Your task to perform on an android device: Add "alienware area 51" to the cart on ebay.com, then select checkout. Image 0: 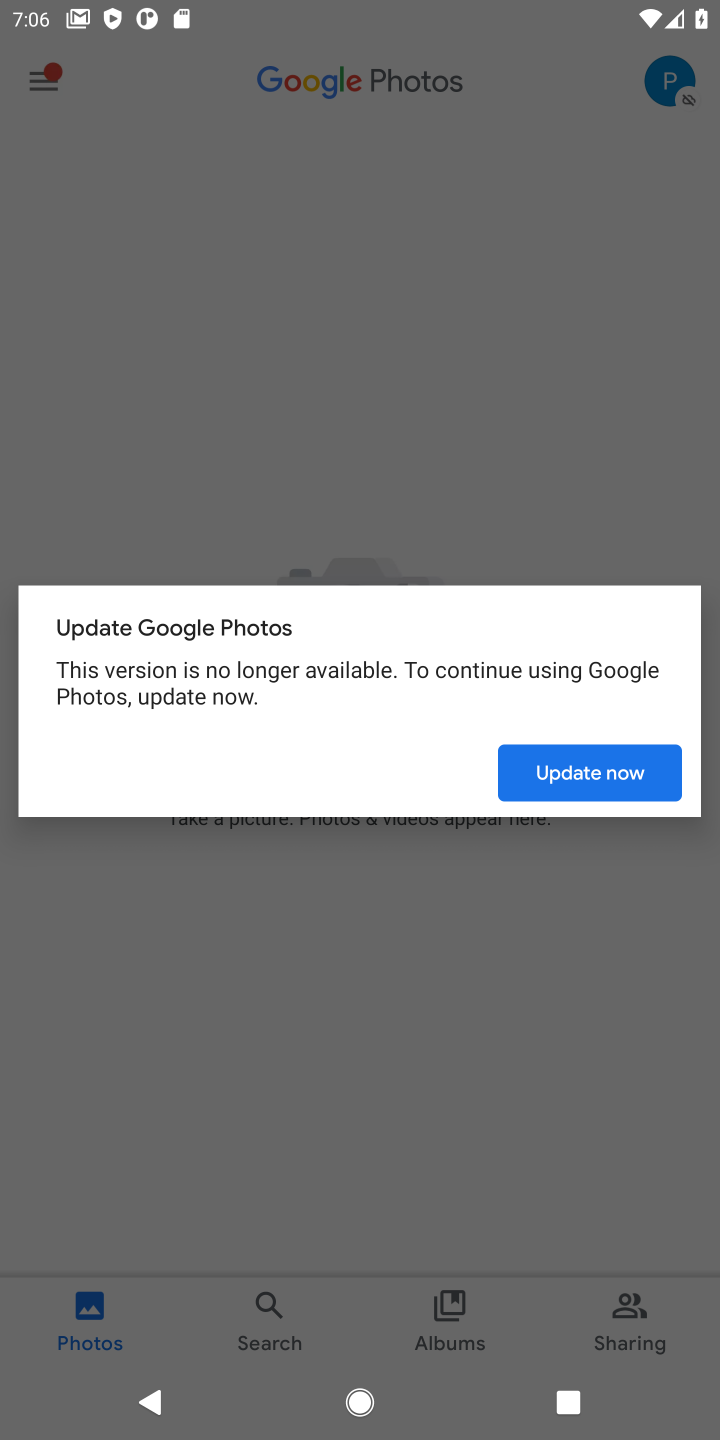
Step 0: press home button
Your task to perform on an android device: Add "alienware area 51" to the cart on ebay.com, then select checkout. Image 1: 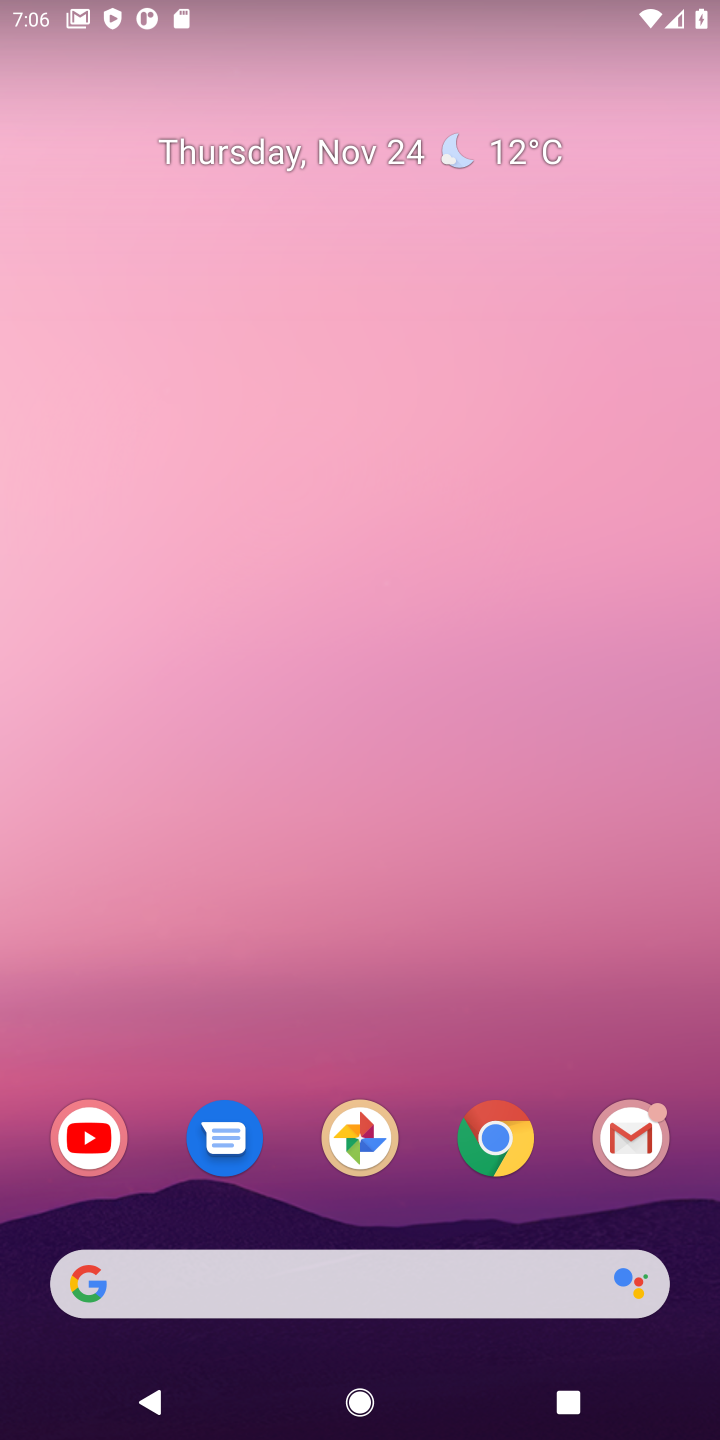
Step 1: click (482, 1146)
Your task to perform on an android device: Add "alienware area 51" to the cart on ebay.com, then select checkout. Image 2: 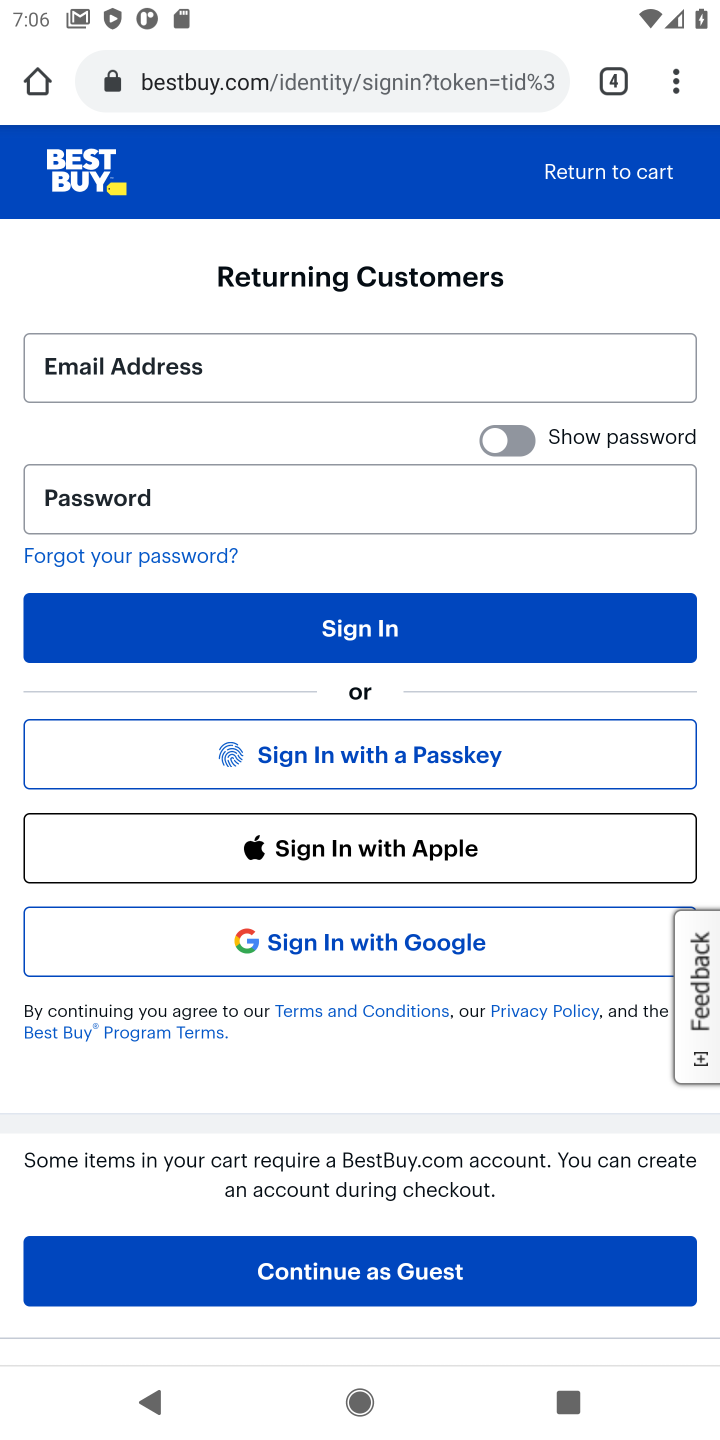
Step 2: click (615, 79)
Your task to perform on an android device: Add "alienware area 51" to the cart on ebay.com, then select checkout. Image 3: 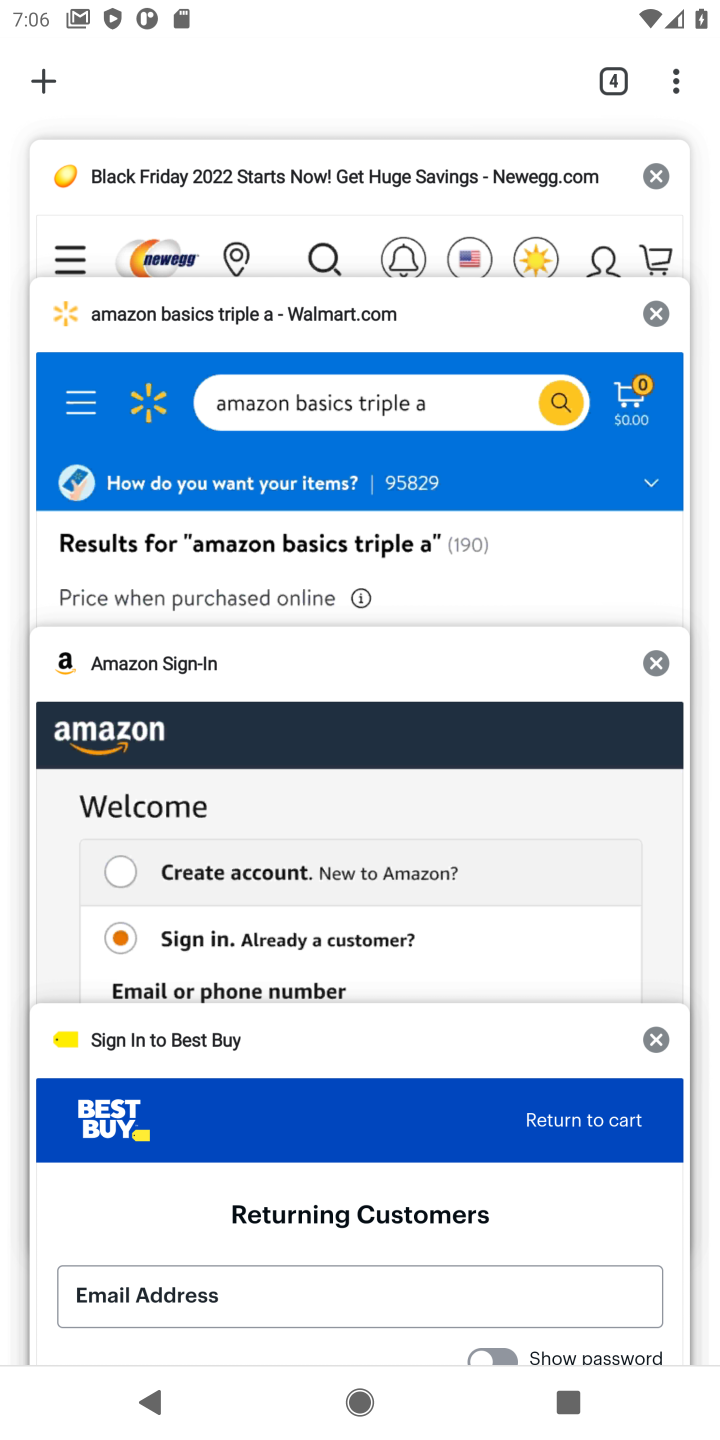
Step 3: click (31, 70)
Your task to perform on an android device: Add "alienware area 51" to the cart on ebay.com, then select checkout. Image 4: 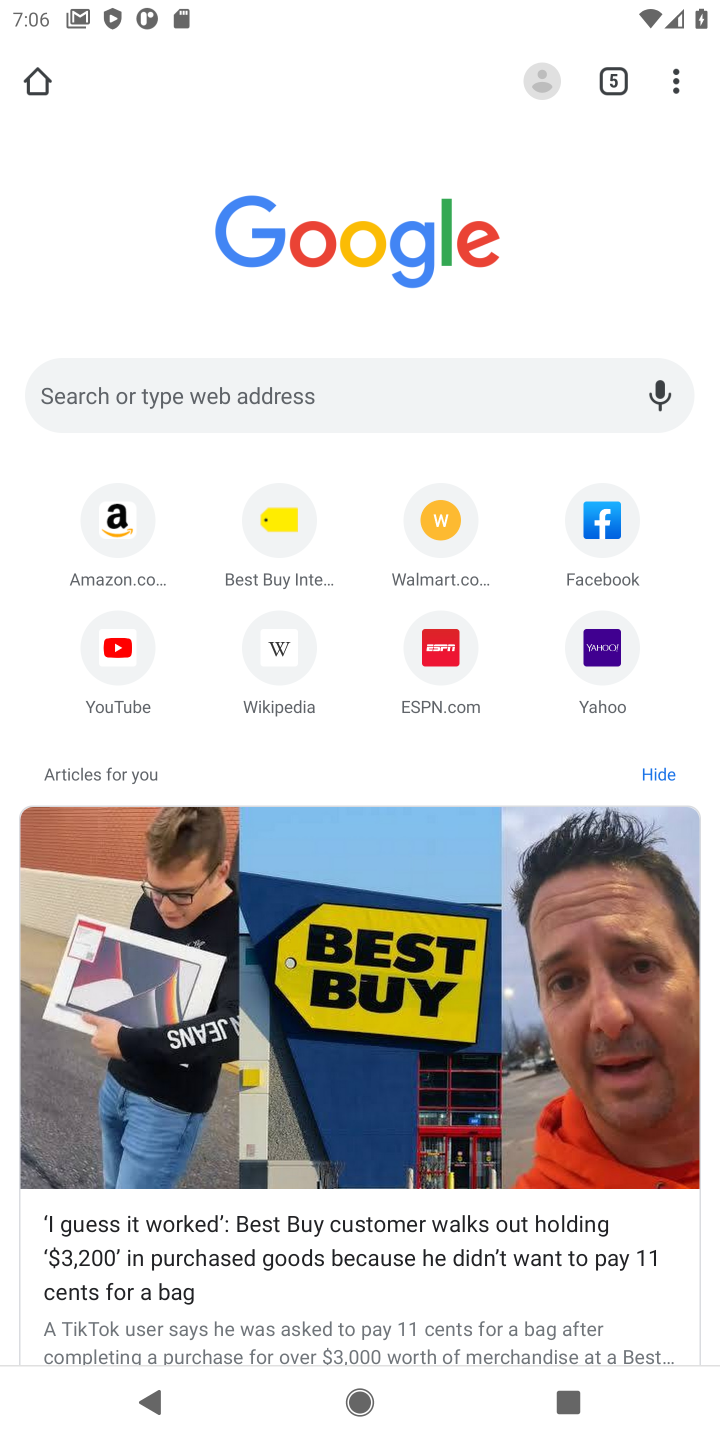
Step 4: click (276, 387)
Your task to perform on an android device: Add "alienware area 51" to the cart on ebay.com, then select checkout. Image 5: 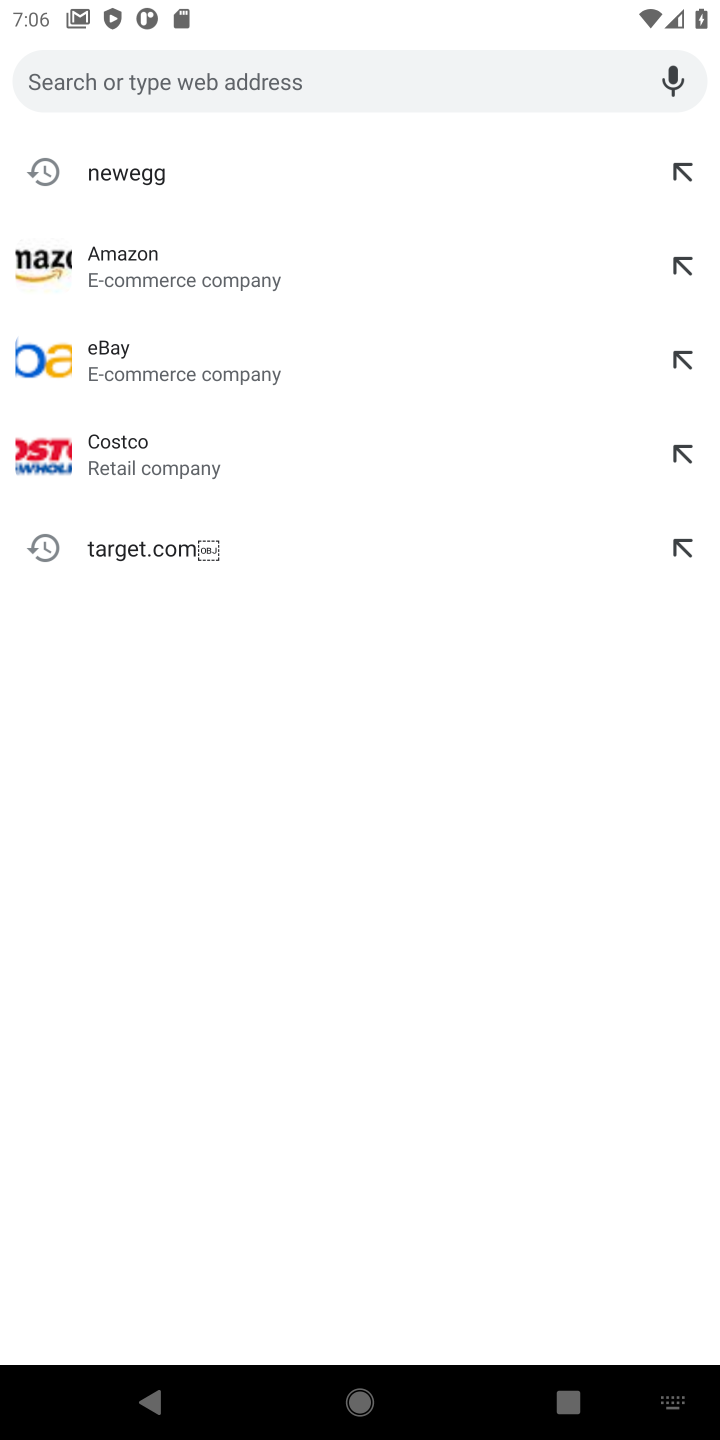
Step 5: click (142, 377)
Your task to perform on an android device: Add "alienware area 51" to the cart on ebay.com, then select checkout. Image 6: 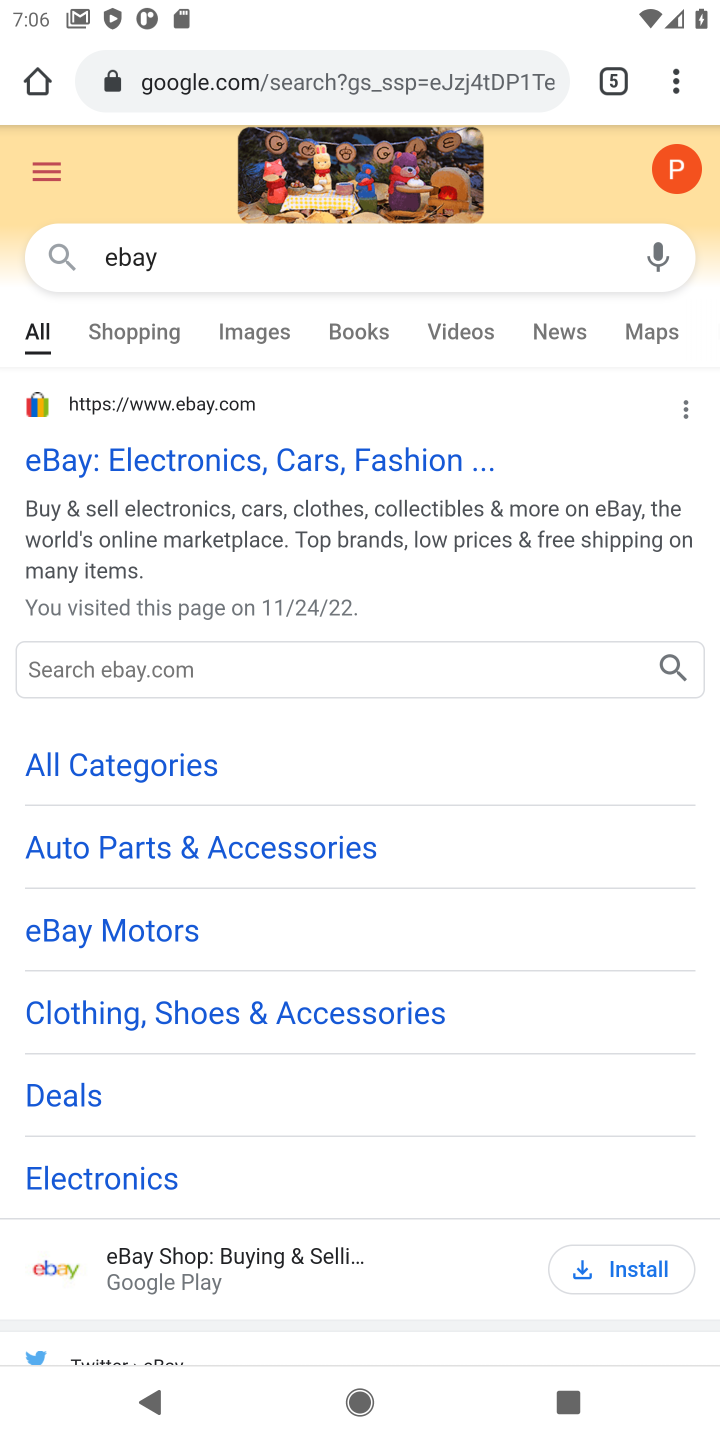
Step 6: click (220, 462)
Your task to perform on an android device: Add "alienware area 51" to the cart on ebay.com, then select checkout. Image 7: 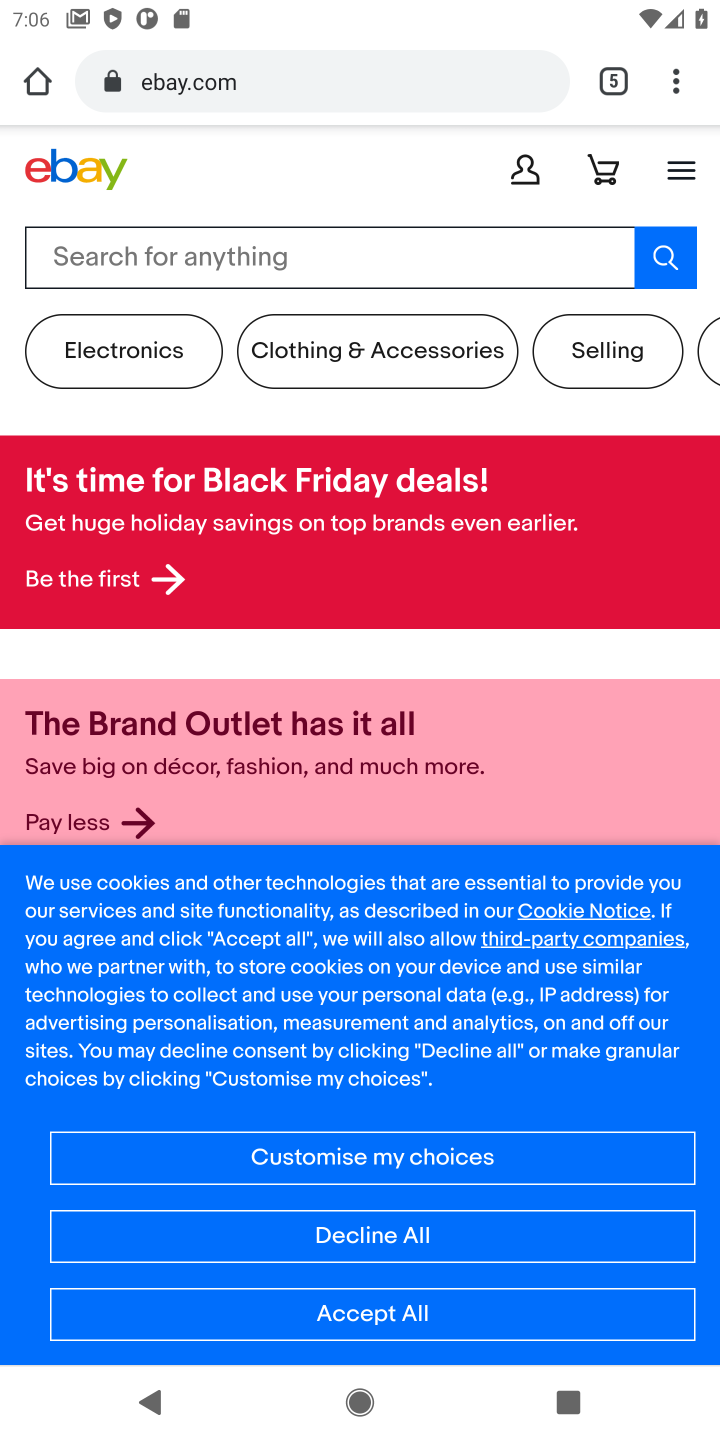
Step 7: click (365, 248)
Your task to perform on an android device: Add "alienware area 51" to the cart on ebay.com, then select checkout. Image 8: 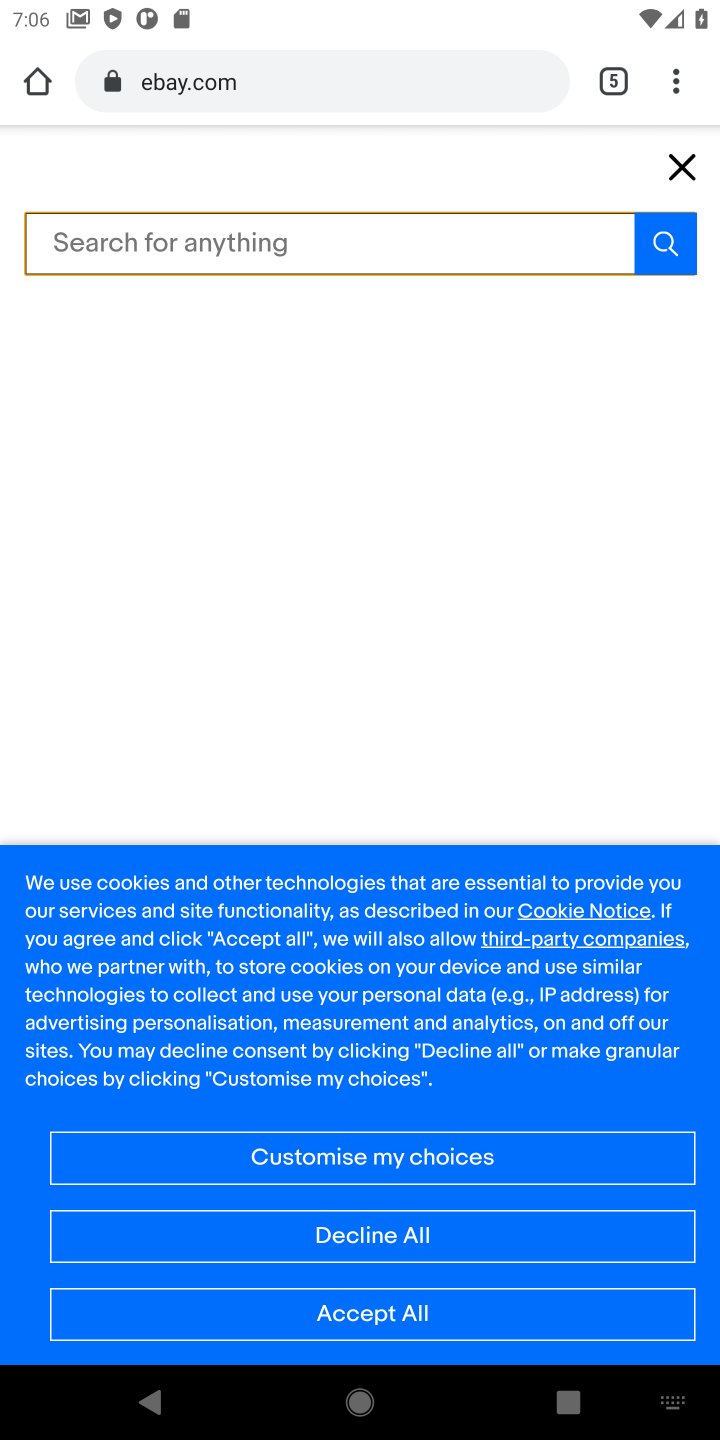
Step 8: click (271, 228)
Your task to perform on an android device: Add "alienware area 51" to the cart on ebay.com, then select checkout. Image 9: 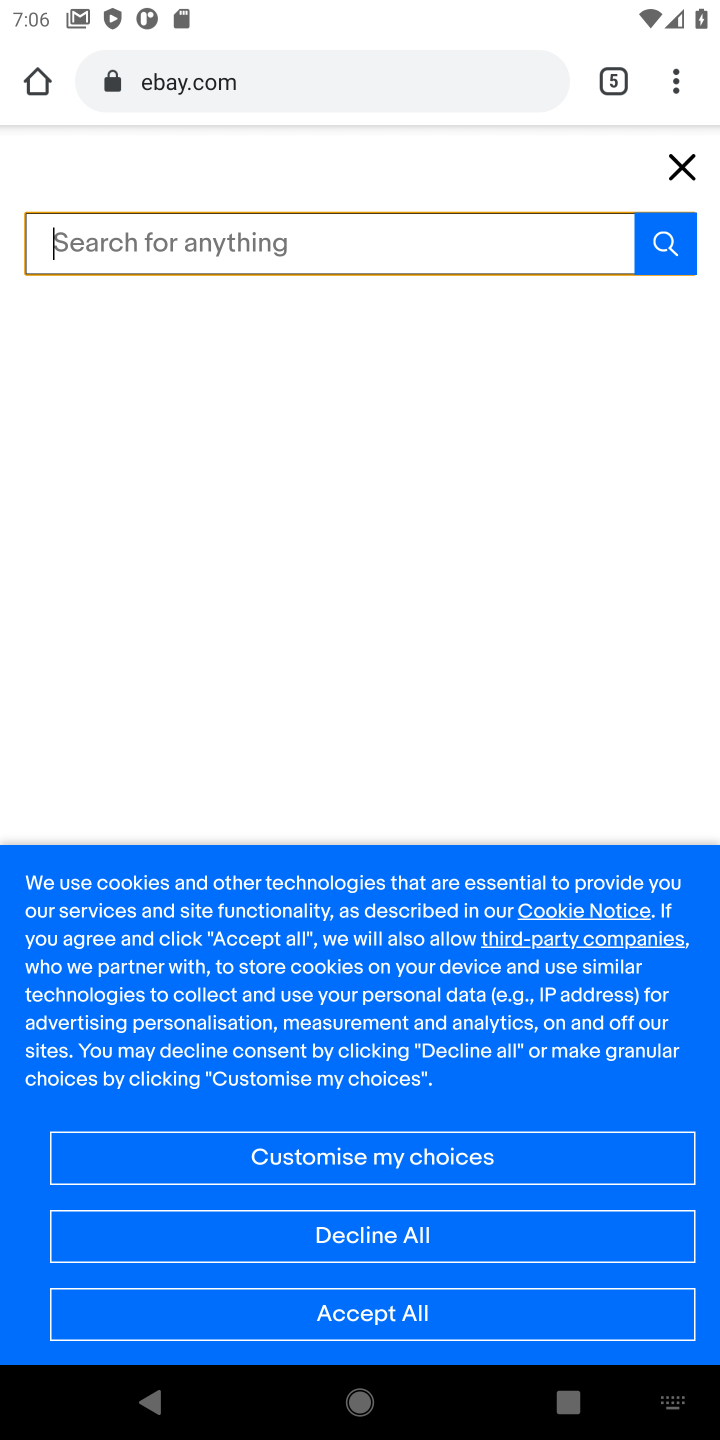
Step 9: type "alienware area 51"
Your task to perform on an android device: Add "alienware area 51" to the cart on ebay.com, then select checkout. Image 10: 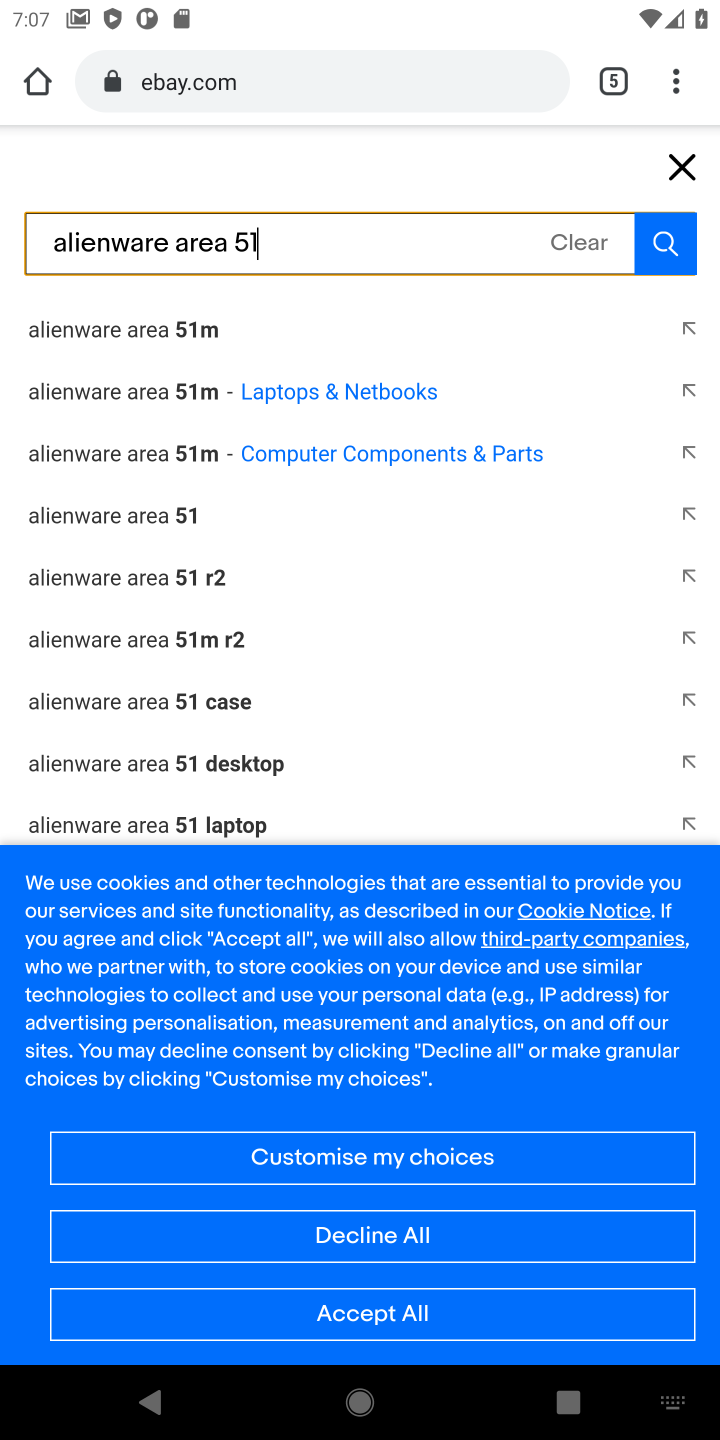
Step 10: click (159, 520)
Your task to perform on an android device: Add "alienware area 51" to the cart on ebay.com, then select checkout. Image 11: 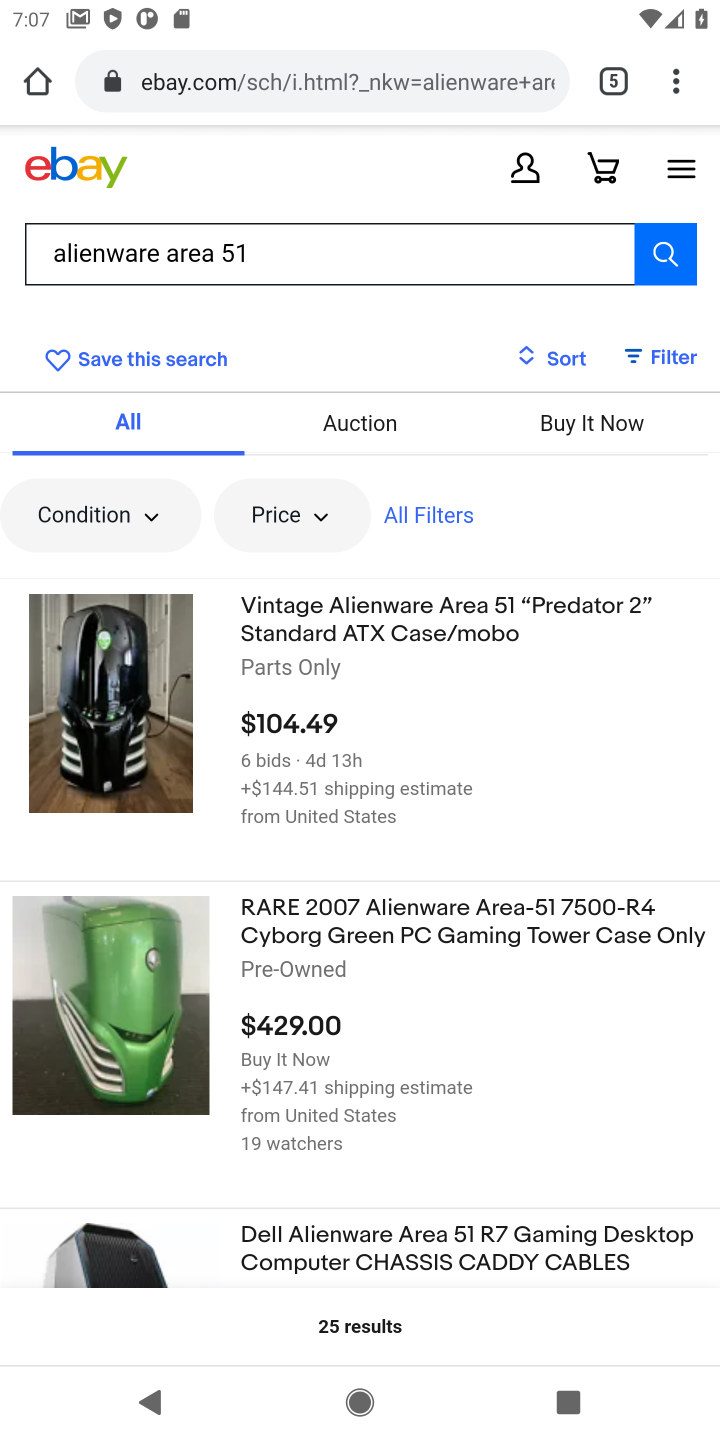
Step 11: drag from (324, 994) to (329, 695)
Your task to perform on an android device: Add "alienware area 51" to the cart on ebay.com, then select checkout. Image 12: 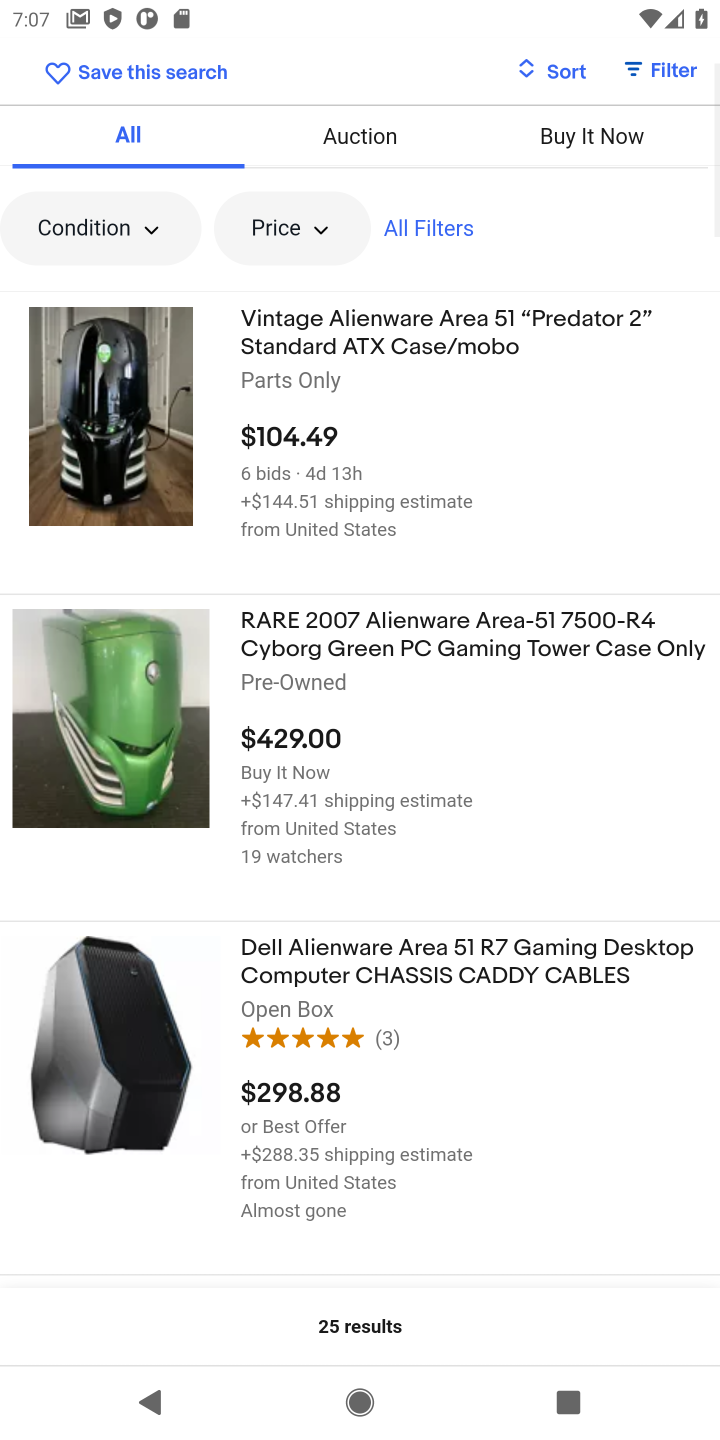
Step 12: click (151, 926)
Your task to perform on an android device: Add "alienware area 51" to the cart on ebay.com, then select checkout. Image 13: 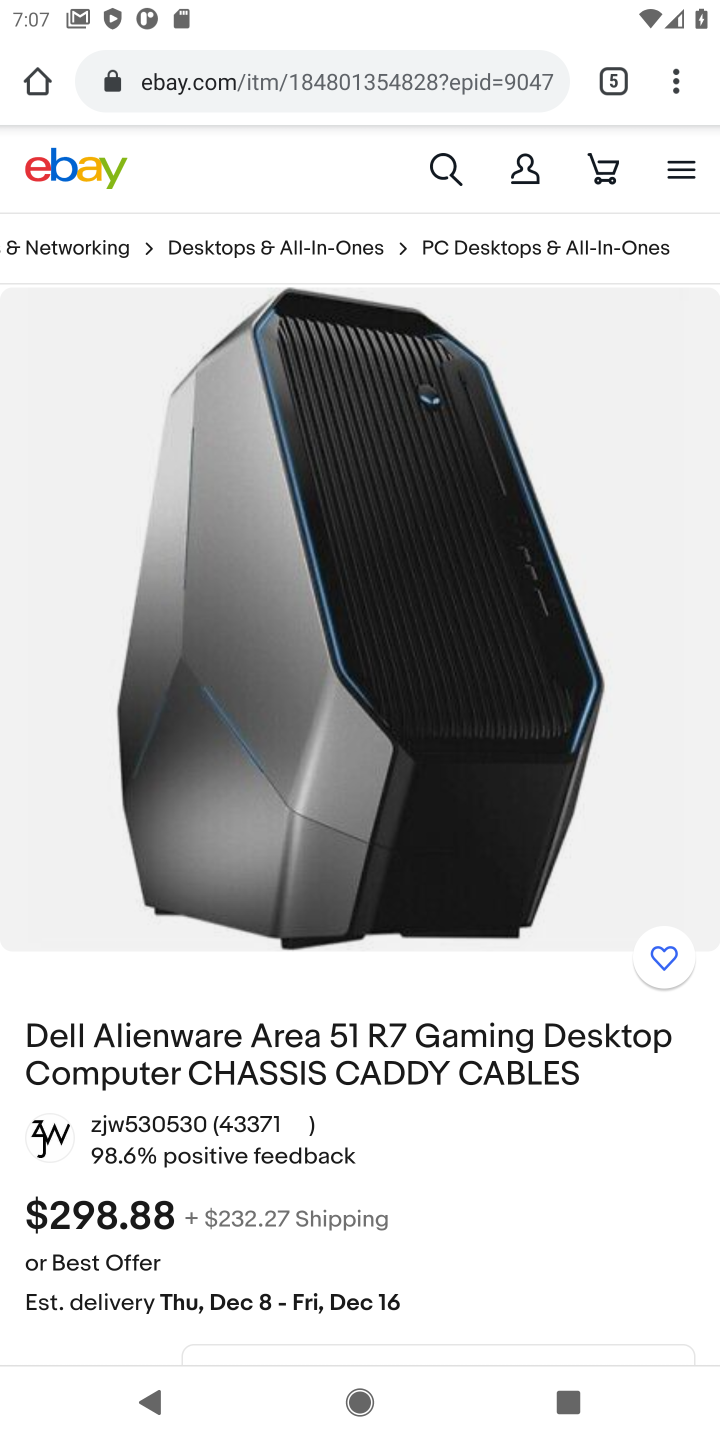
Step 13: drag from (288, 1113) to (334, 517)
Your task to perform on an android device: Add "alienware area 51" to the cart on ebay.com, then select checkout. Image 14: 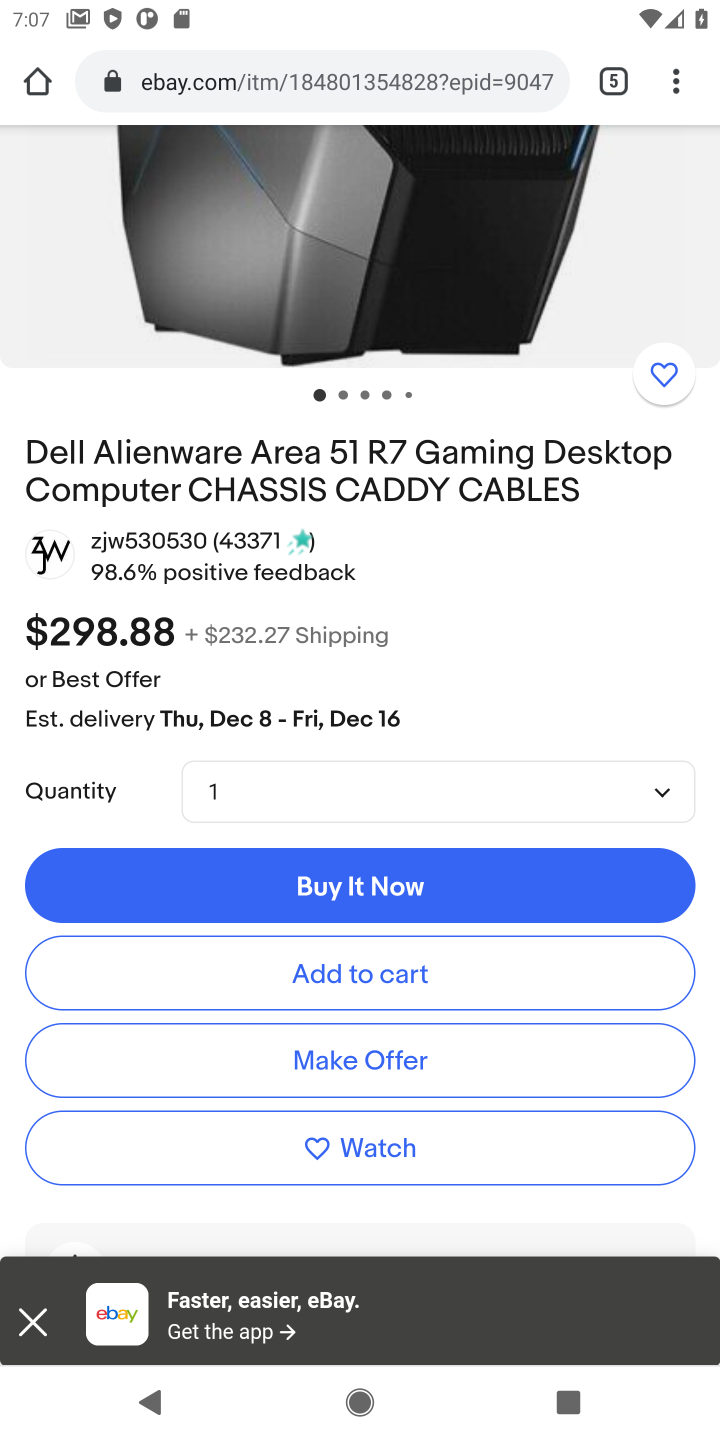
Step 14: click (337, 976)
Your task to perform on an android device: Add "alienware area 51" to the cart on ebay.com, then select checkout. Image 15: 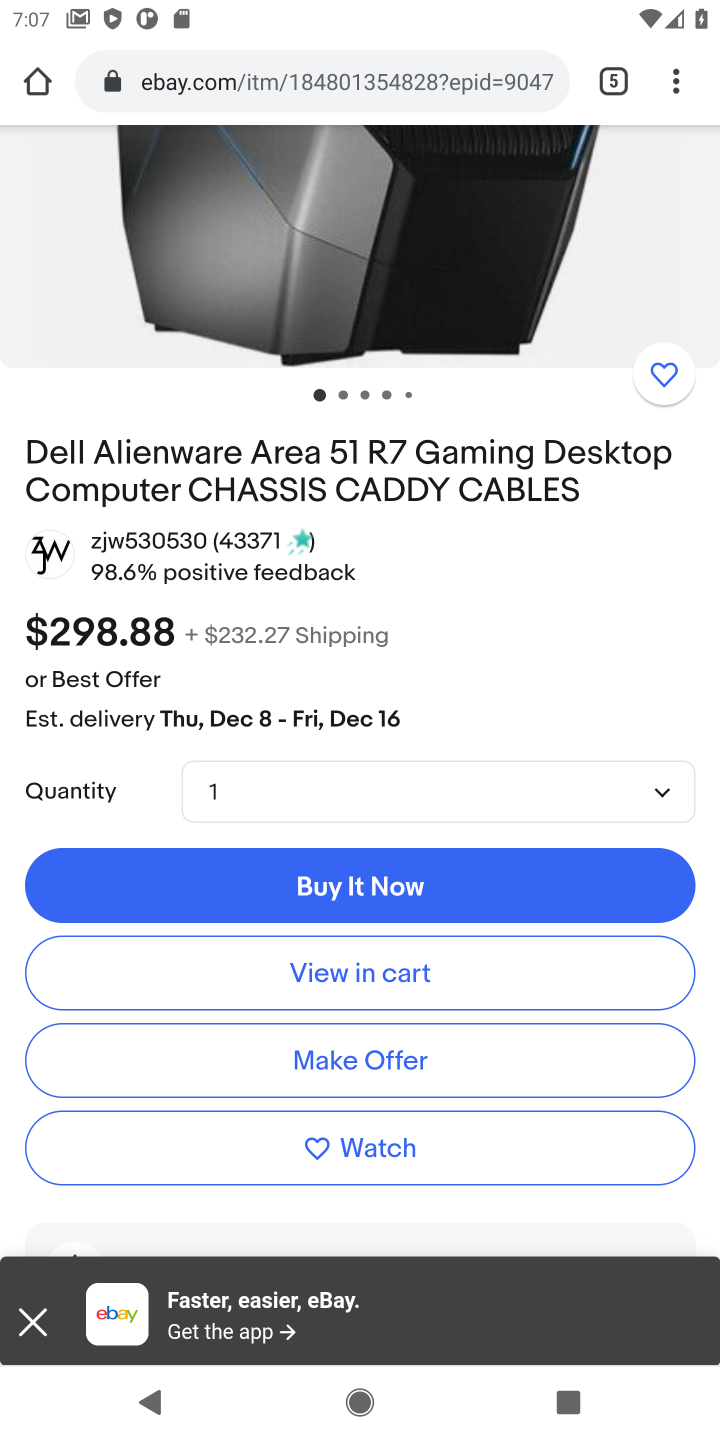
Step 15: click (401, 993)
Your task to perform on an android device: Add "alienware area 51" to the cart on ebay.com, then select checkout. Image 16: 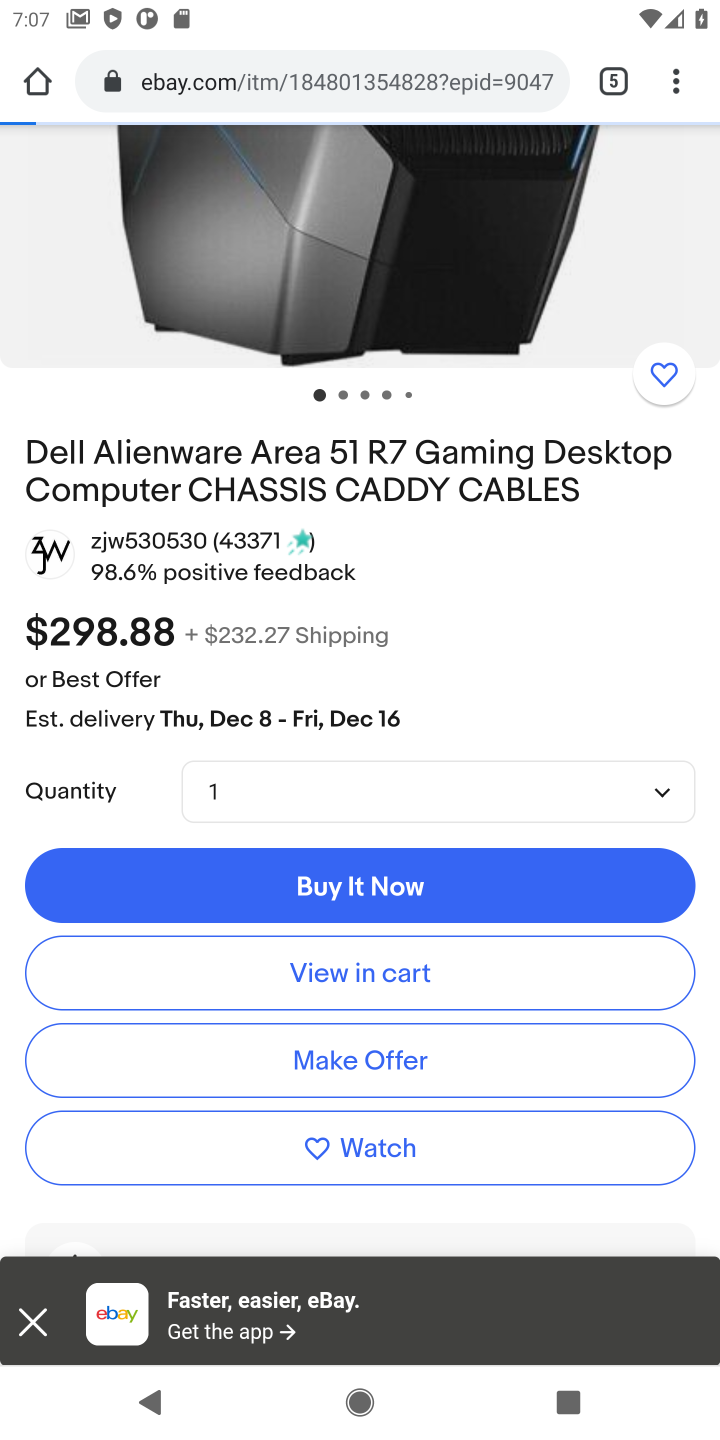
Step 16: click (383, 973)
Your task to perform on an android device: Add "alienware area 51" to the cart on ebay.com, then select checkout. Image 17: 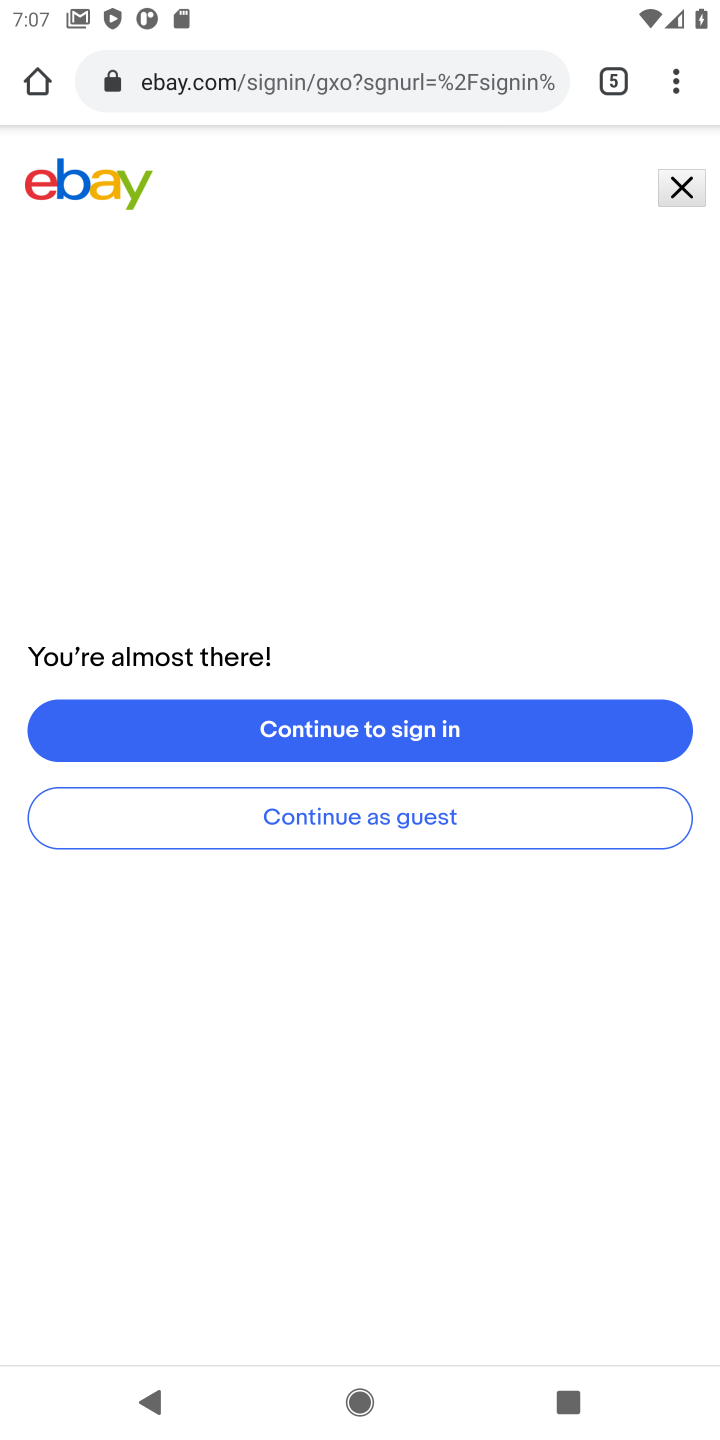
Step 17: task complete